Your task to perform on an android device: Search for pizza restaurants on Maps Image 0: 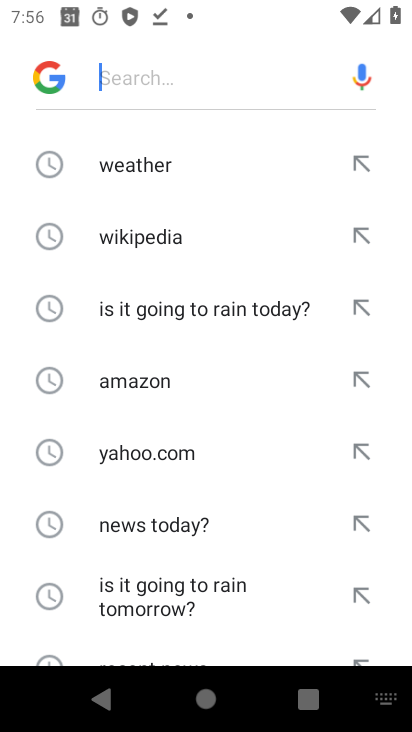
Step 0: press home button
Your task to perform on an android device: Search for pizza restaurants on Maps Image 1: 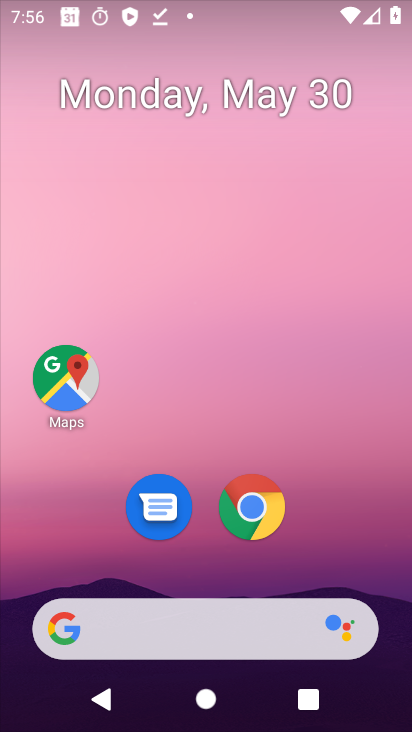
Step 1: drag from (361, 611) to (383, 197)
Your task to perform on an android device: Search for pizza restaurants on Maps Image 2: 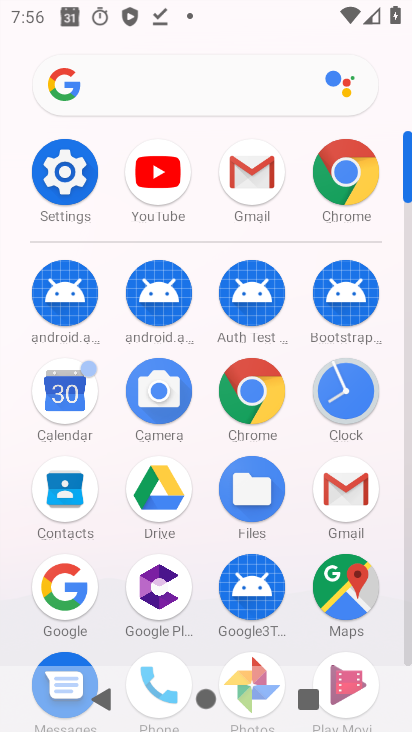
Step 2: click (327, 596)
Your task to perform on an android device: Search for pizza restaurants on Maps Image 3: 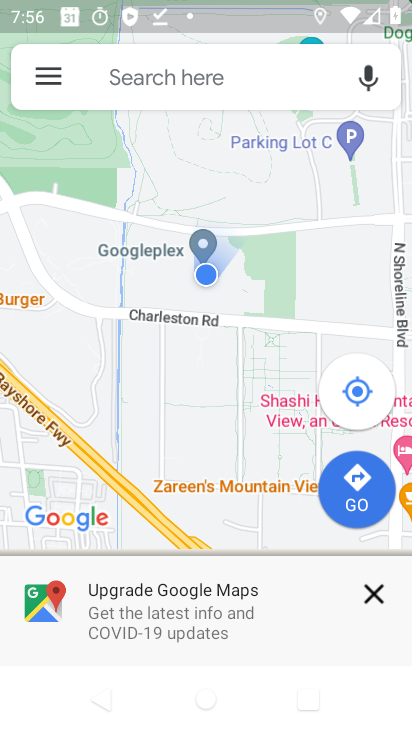
Step 3: click (218, 92)
Your task to perform on an android device: Search for pizza restaurants on Maps Image 4: 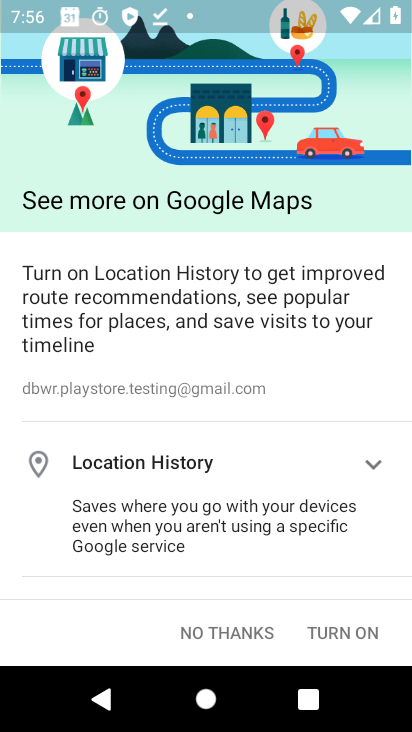
Step 4: click (250, 629)
Your task to perform on an android device: Search for pizza restaurants on Maps Image 5: 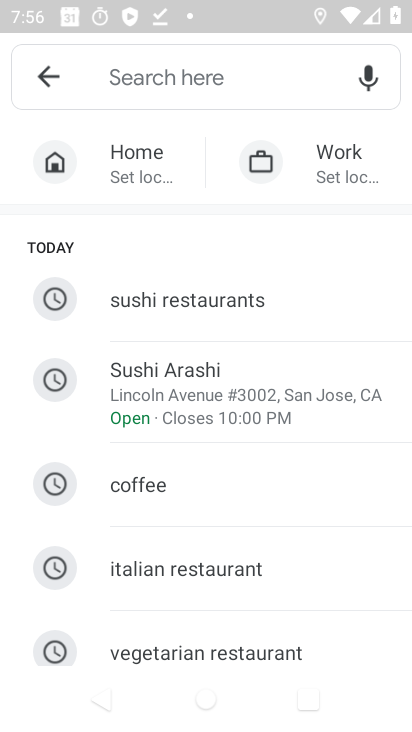
Step 5: type "pizza restaurants "
Your task to perform on an android device: Search for pizza restaurants on Maps Image 6: 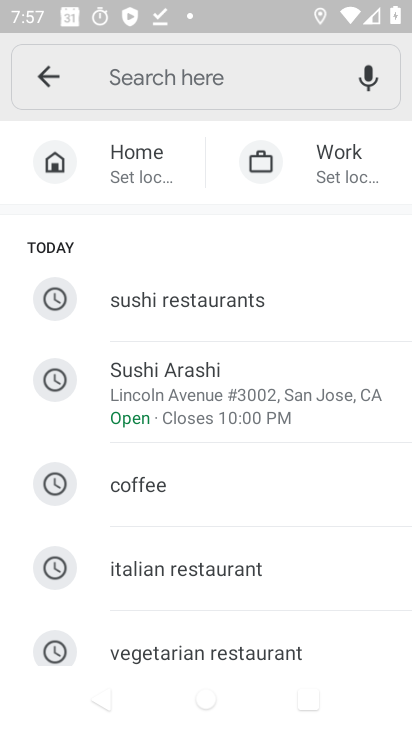
Step 6: drag from (317, 593) to (345, 247)
Your task to perform on an android device: Search for pizza restaurants on Maps Image 7: 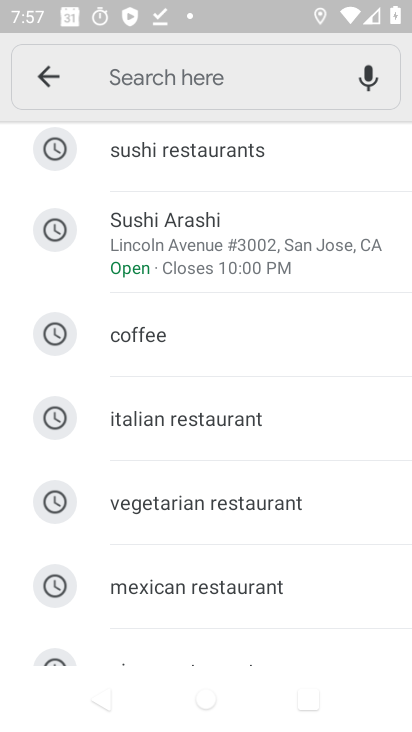
Step 7: drag from (302, 506) to (336, 220)
Your task to perform on an android device: Search for pizza restaurants on Maps Image 8: 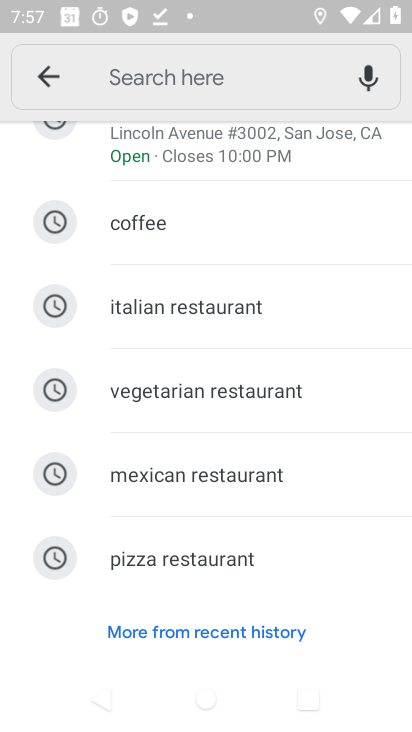
Step 8: click (224, 562)
Your task to perform on an android device: Search for pizza restaurants on Maps Image 9: 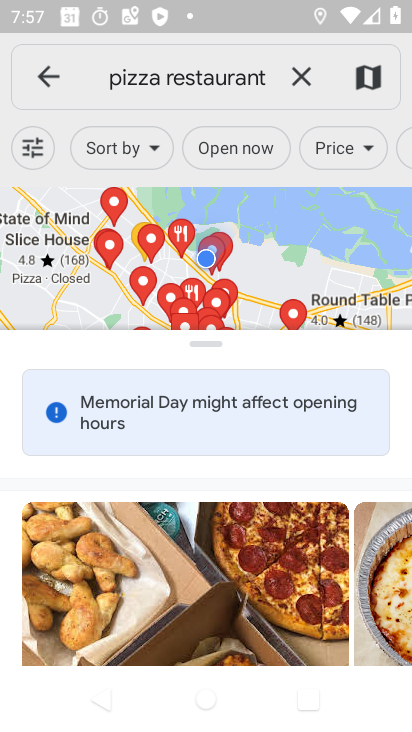
Step 9: task complete